Your task to perform on an android device: change your default location settings in chrome Image 0: 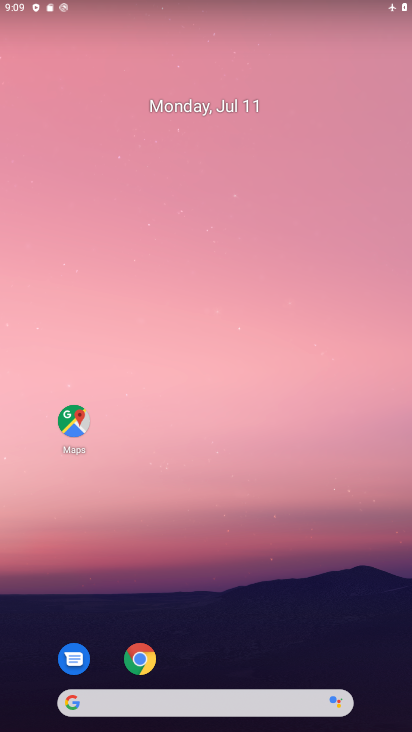
Step 0: click (205, 657)
Your task to perform on an android device: change your default location settings in chrome Image 1: 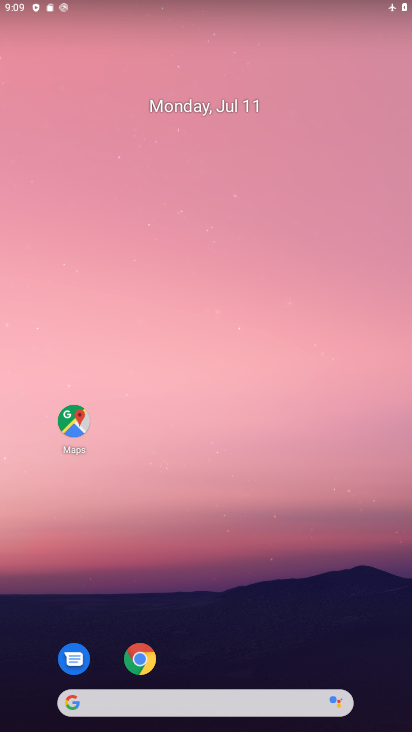
Step 1: click (139, 649)
Your task to perform on an android device: change your default location settings in chrome Image 2: 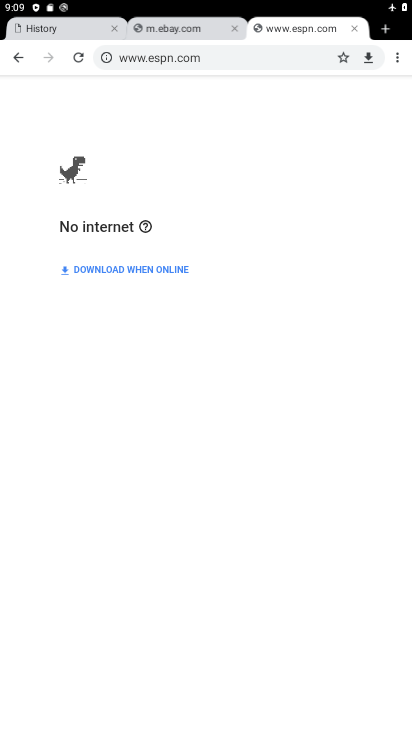
Step 2: click (399, 59)
Your task to perform on an android device: change your default location settings in chrome Image 3: 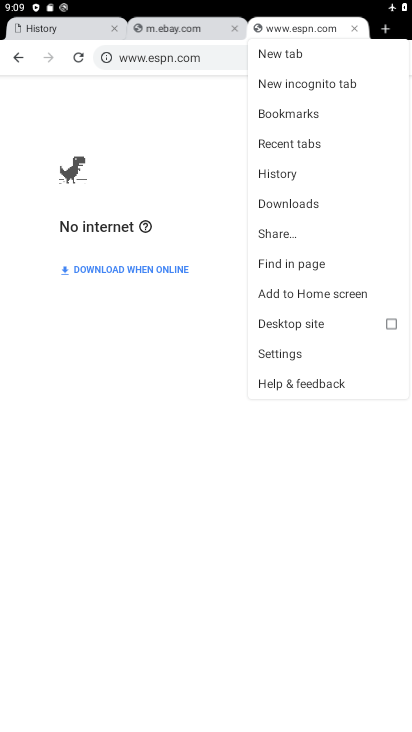
Step 3: click (295, 354)
Your task to perform on an android device: change your default location settings in chrome Image 4: 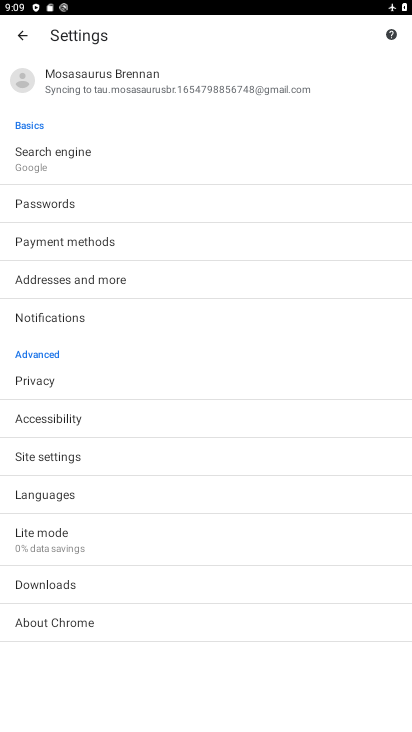
Step 4: click (50, 447)
Your task to perform on an android device: change your default location settings in chrome Image 5: 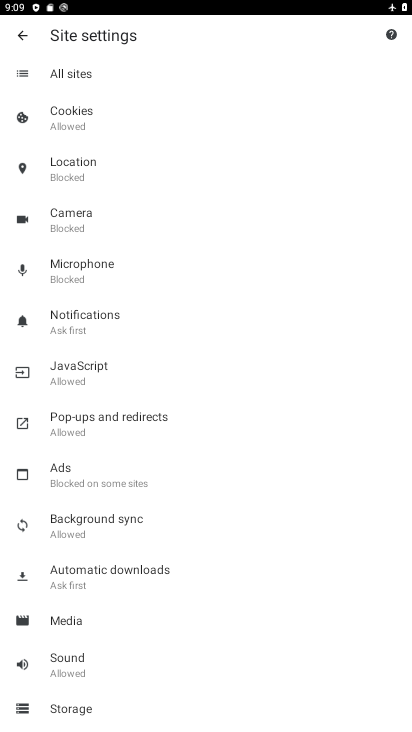
Step 5: click (104, 176)
Your task to perform on an android device: change your default location settings in chrome Image 6: 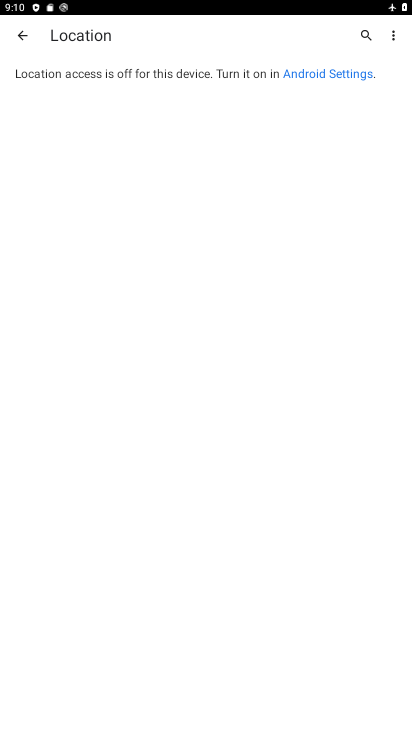
Step 6: task complete